Your task to perform on an android device: turn off notifications in google photos Image 0: 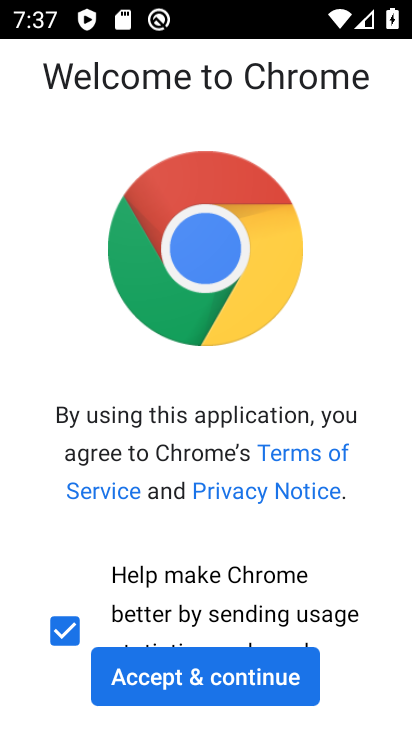
Step 0: press home button
Your task to perform on an android device: turn off notifications in google photos Image 1: 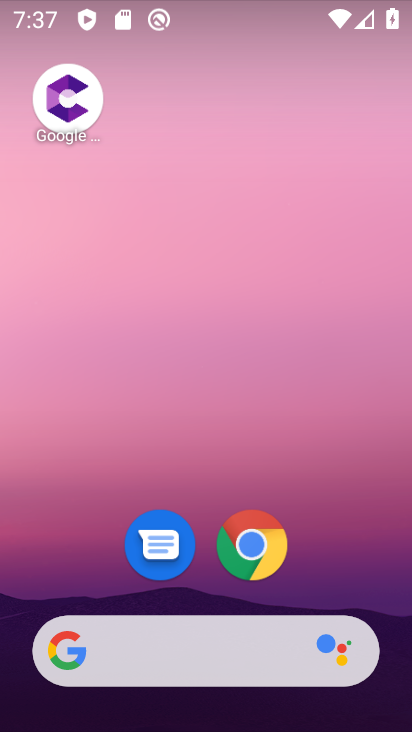
Step 1: drag from (331, 585) to (314, 175)
Your task to perform on an android device: turn off notifications in google photos Image 2: 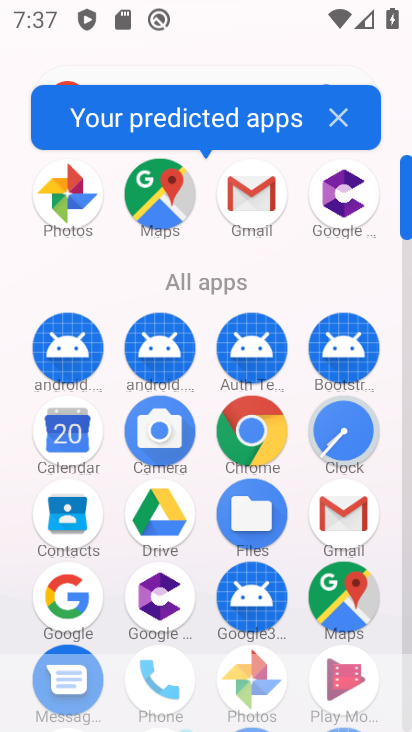
Step 2: click (401, 484)
Your task to perform on an android device: turn off notifications in google photos Image 3: 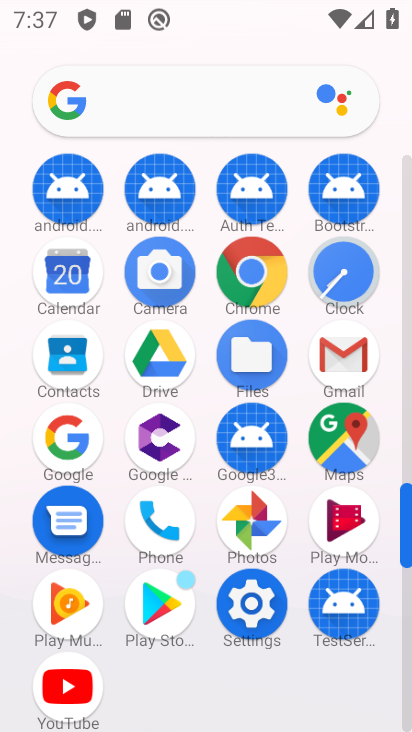
Step 3: click (276, 525)
Your task to perform on an android device: turn off notifications in google photos Image 4: 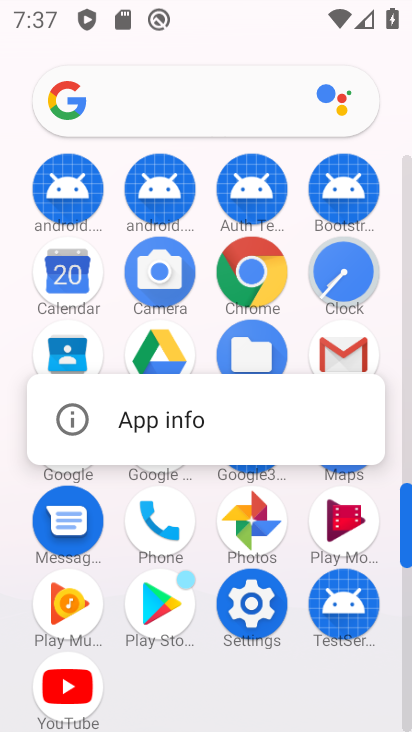
Step 4: click (276, 436)
Your task to perform on an android device: turn off notifications in google photos Image 5: 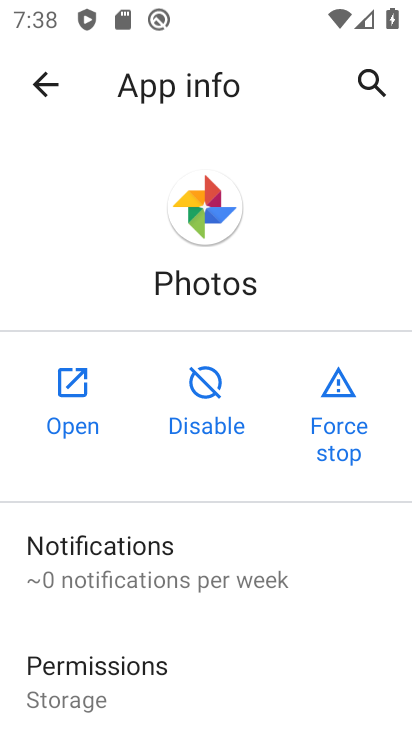
Step 5: click (99, 571)
Your task to perform on an android device: turn off notifications in google photos Image 6: 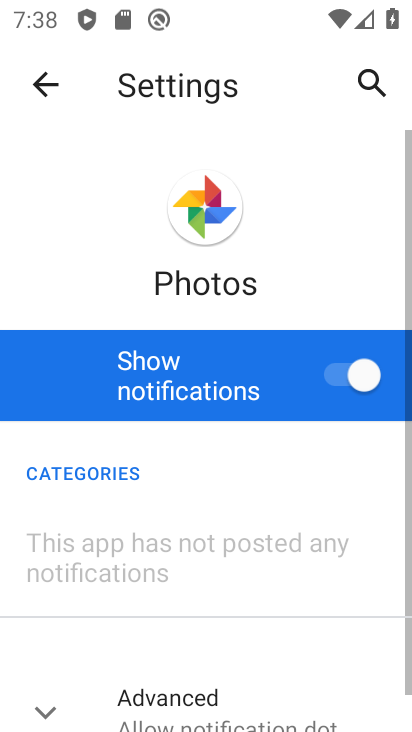
Step 6: click (368, 375)
Your task to perform on an android device: turn off notifications in google photos Image 7: 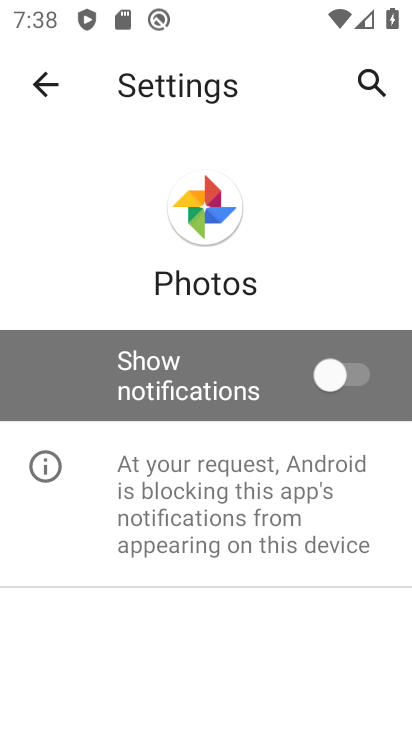
Step 7: task complete